Your task to perform on an android device: Go to CNN.com Image 0: 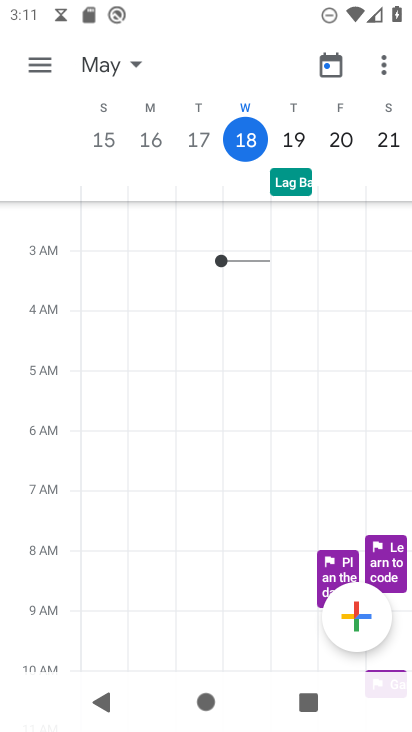
Step 0: press home button
Your task to perform on an android device: Go to CNN.com Image 1: 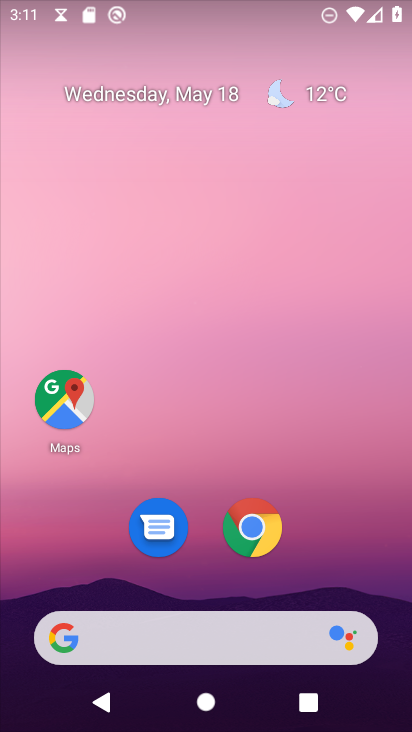
Step 1: click (247, 547)
Your task to perform on an android device: Go to CNN.com Image 2: 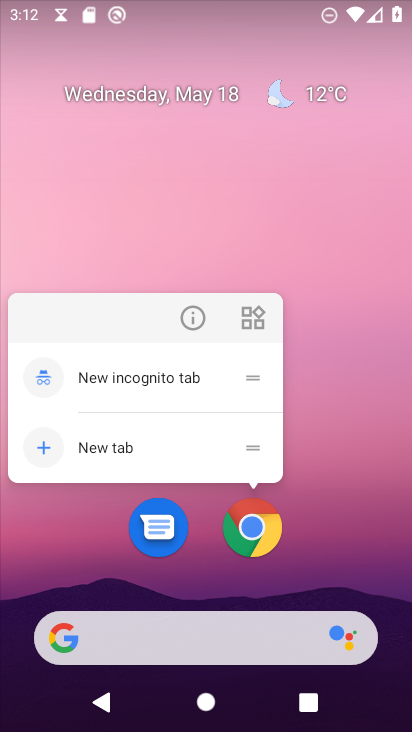
Step 2: click (255, 533)
Your task to perform on an android device: Go to CNN.com Image 3: 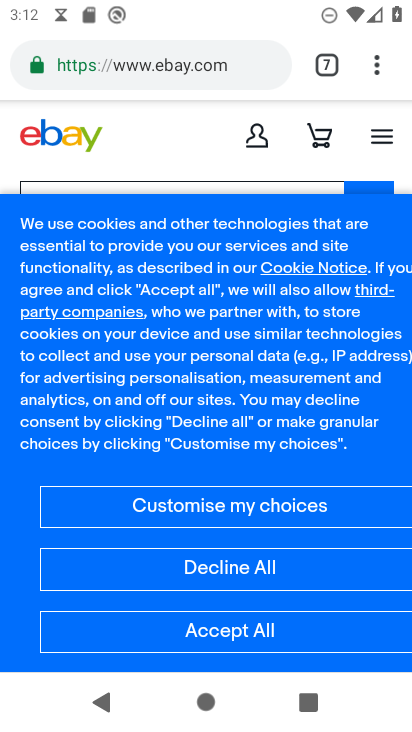
Step 3: click (319, 67)
Your task to perform on an android device: Go to CNN.com Image 4: 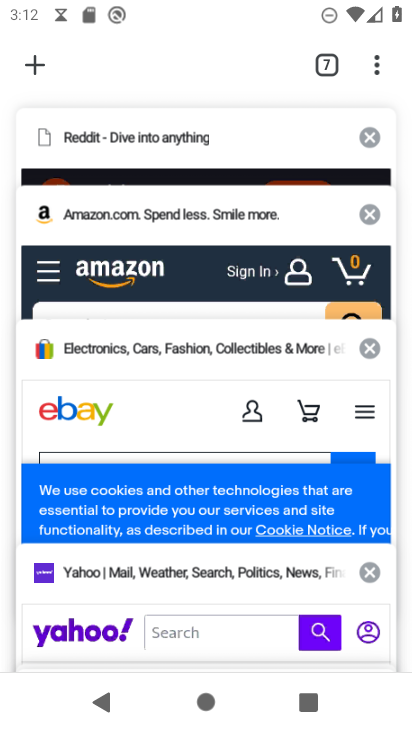
Step 4: drag from (201, 258) to (185, 588)
Your task to perform on an android device: Go to CNN.com Image 5: 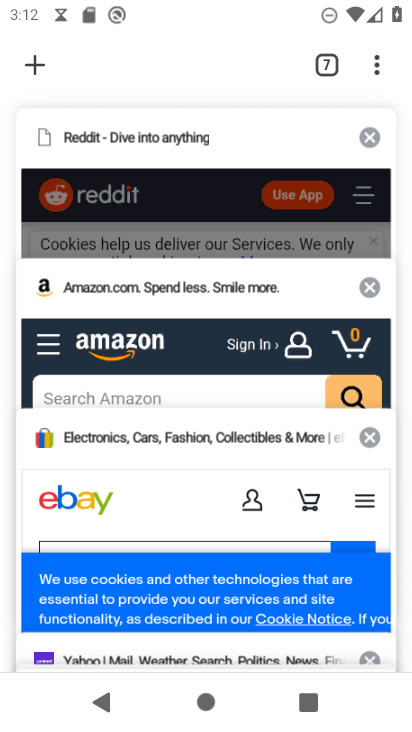
Step 5: drag from (171, 217) to (167, 570)
Your task to perform on an android device: Go to CNN.com Image 6: 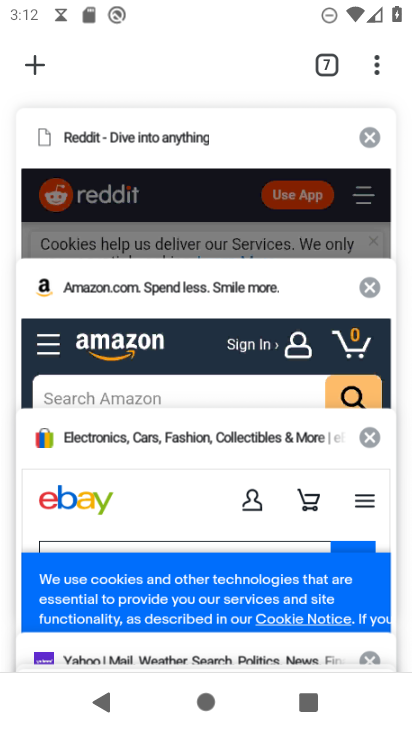
Step 6: click (32, 39)
Your task to perform on an android device: Go to CNN.com Image 7: 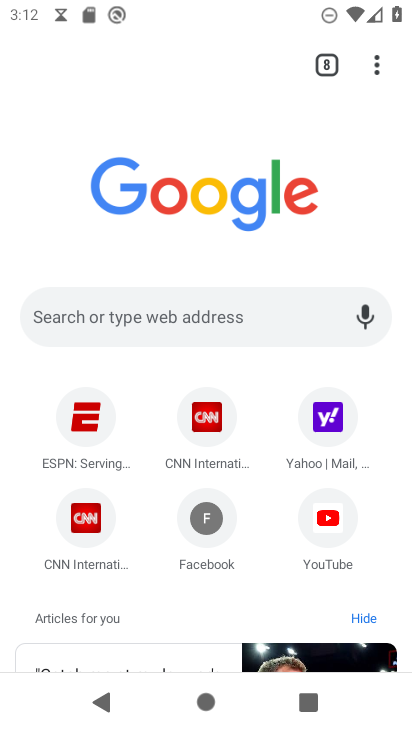
Step 7: click (201, 425)
Your task to perform on an android device: Go to CNN.com Image 8: 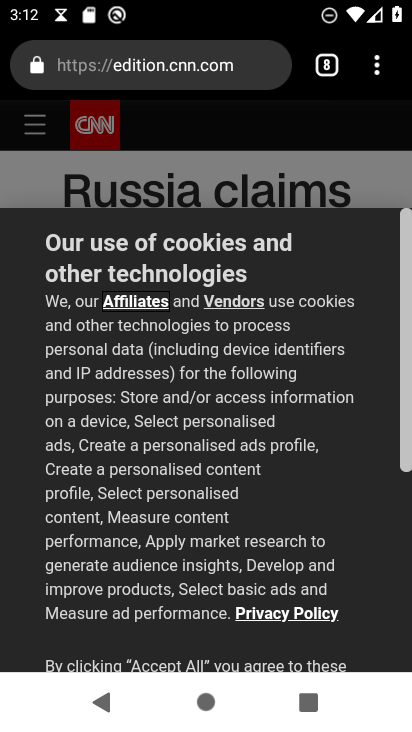
Step 8: task complete